Your task to perform on an android device: Open Youtube and go to the subscriptions tab Image 0: 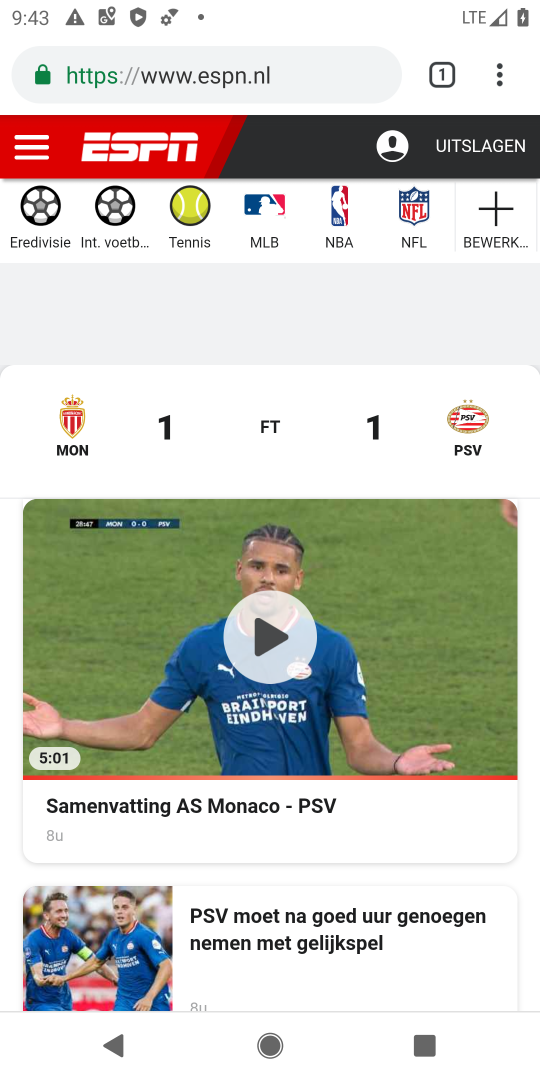
Step 0: press back button
Your task to perform on an android device: Open Youtube and go to the subscriptions tab Image 1: 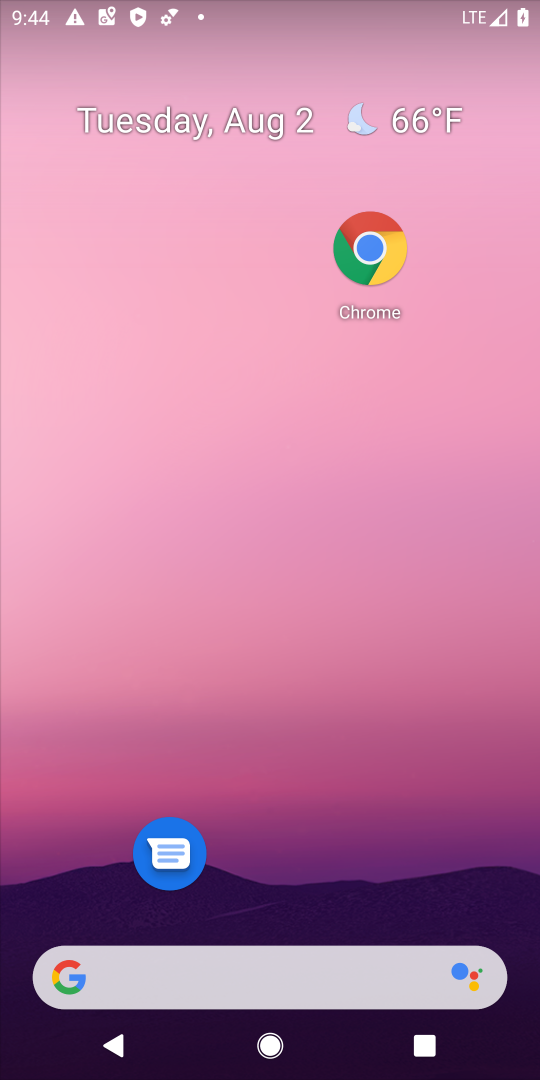
Step 1: drag from (334, 914) to (205, 97)
Your task to perform on an android device: Open Youtube and go to the subscriptions tab Image 2: 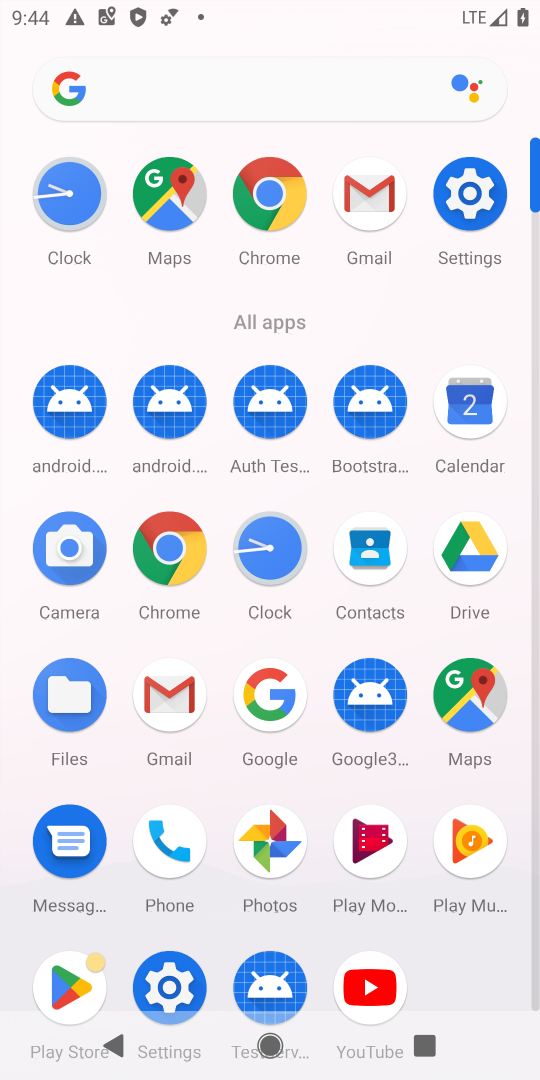
Step 2: click (389, 958)
Your task to perform on an android device: Open Youtube and go to the subscriptions tab Image 3: 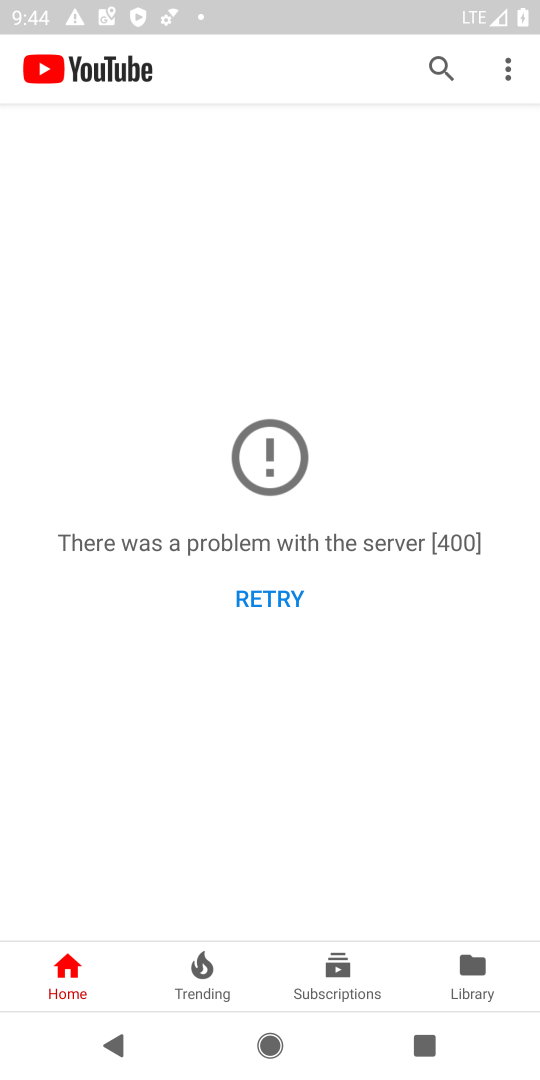
Step 3: click (336, 985)
Your task to perform on an android device: Open Youtube and go to the subscriptions tab Image 4: 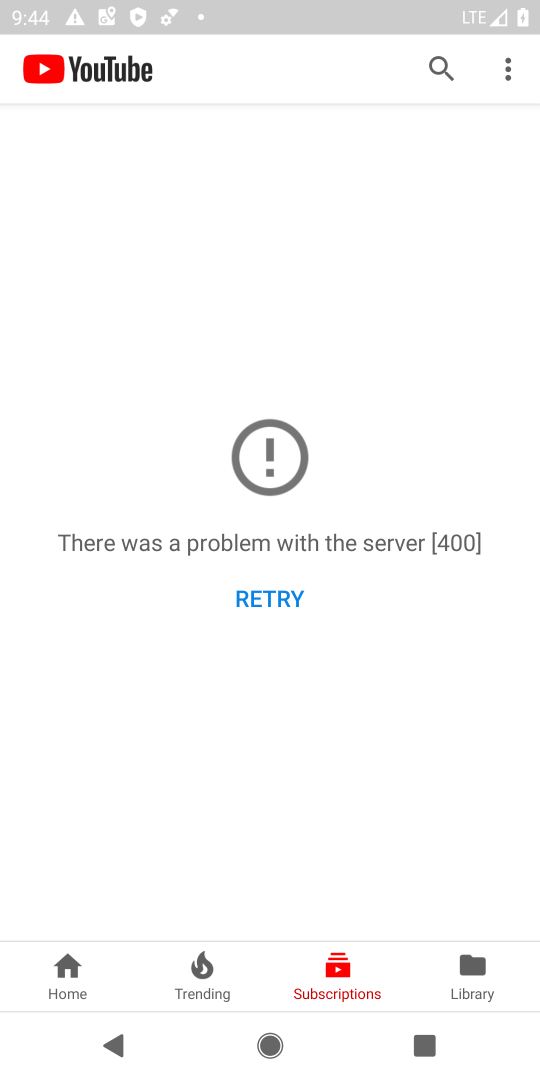
Step 4: task complete